Your task to perform on an android device: open wifi settings Image 0: 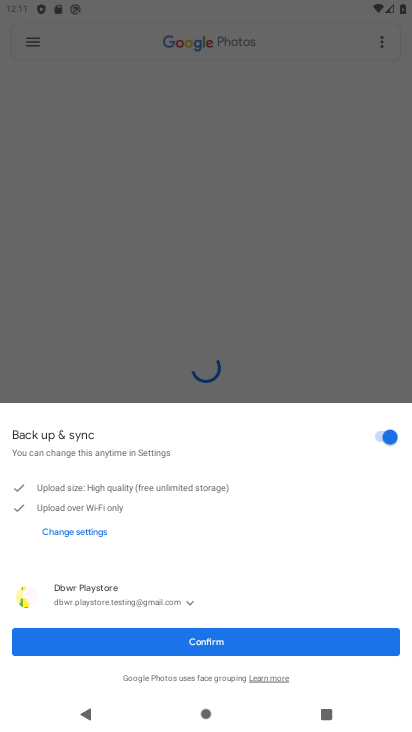
Step 0: press home button
Your task to perform on an android device: open wifi settings Image 1: 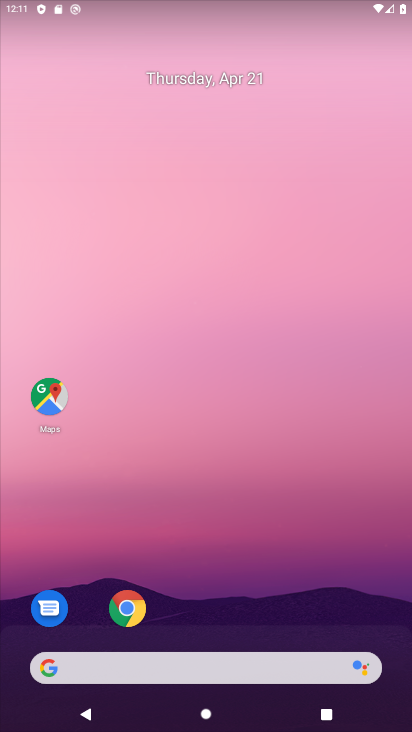
Step 1: drag from (191, 493) to (96, 83)
Your task to perform on an android device: open wifi settings Image 2: 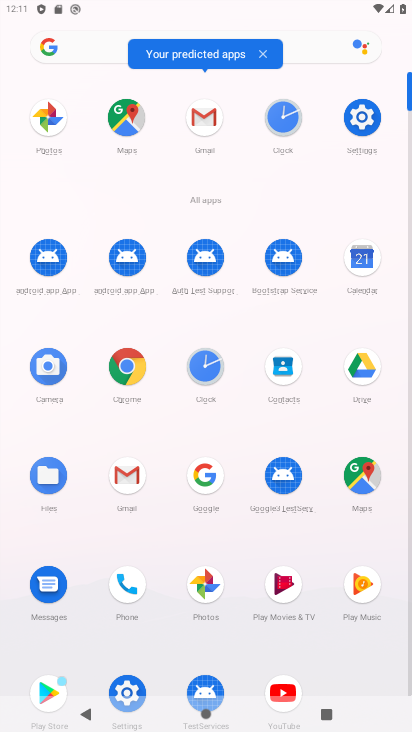
Step 2: click (368, 125)
Your task to perform on an android device: open wifi settings Image 3: 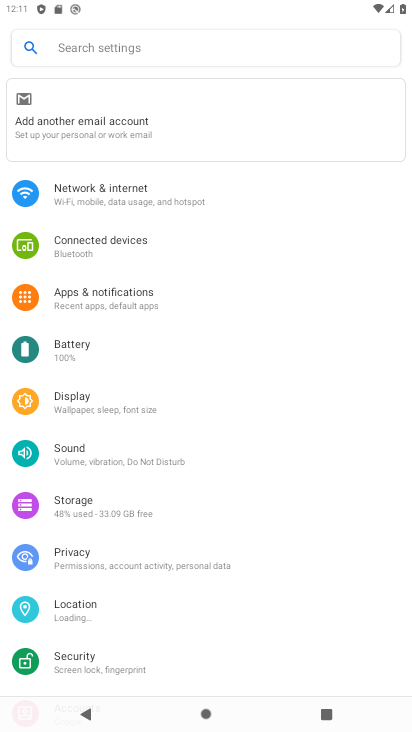
Step 3: click (99, 187)
Your task to perform on an android device: open wifi settings Image 4: 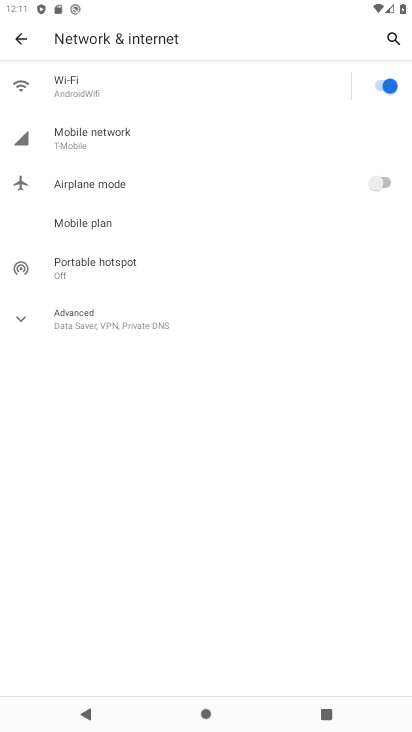
Step 4: click (72, 82)
Your task to perform on an android device: open wifi settings Image 5: 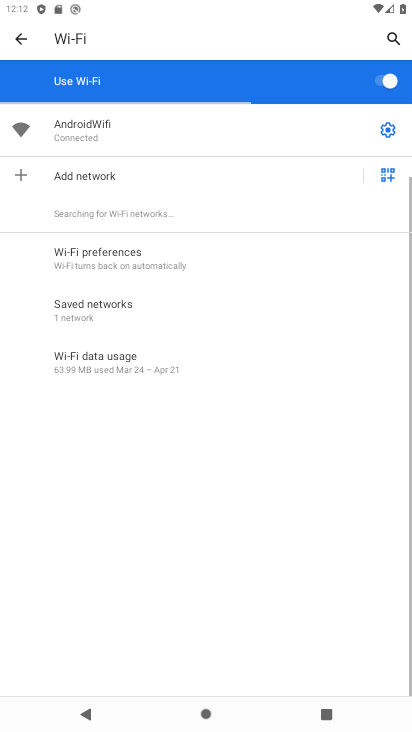
Step 5: task complete